Your task to perform on an android device: Go to ESPN.com Image 0: 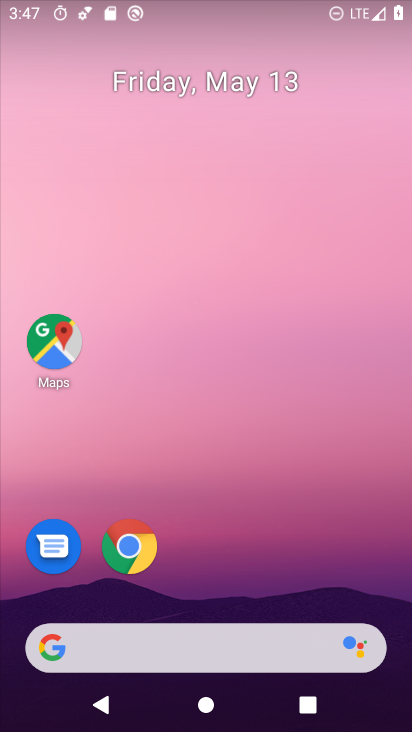
Step 0: click (125, 559)
Your task to perform on an android device: Go to ESPN.com Image 1: 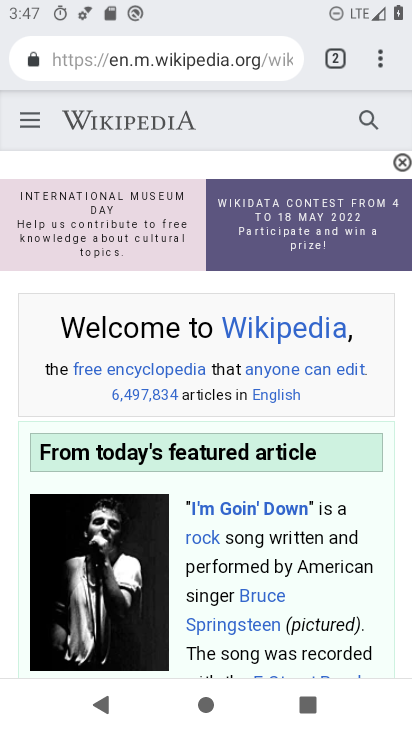
Step 1: click (252, 64)
Your task to perform on an android device: Go to ESPN.com Image 2: 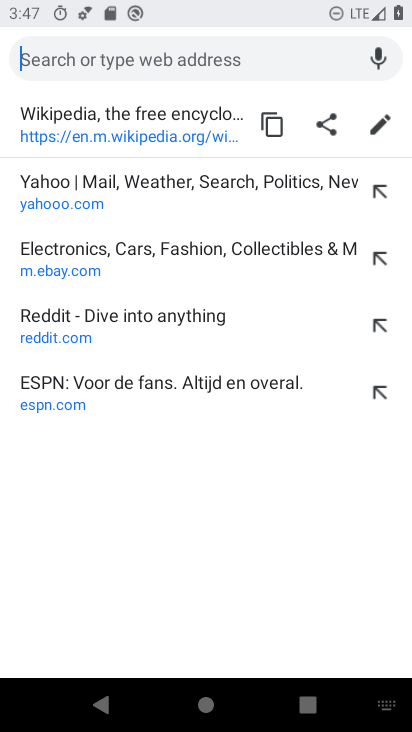
Step 2: click (147, 393)
Your task to perform on an android device: Go to ESPN.com Image 3: 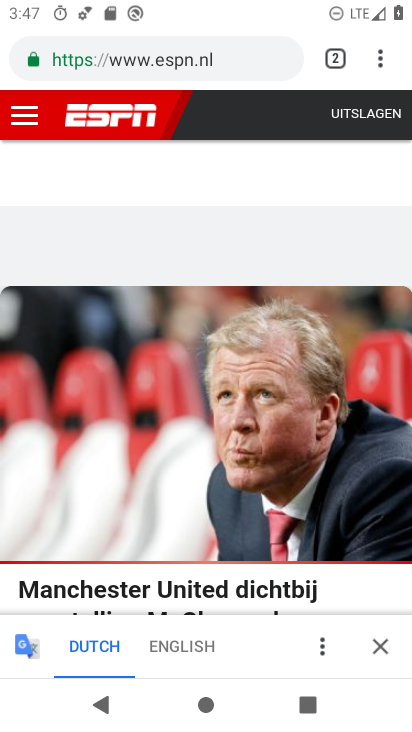
Step 3: task complete